Your task to perform on an android device: Open Maps and search for coffee Image 0: 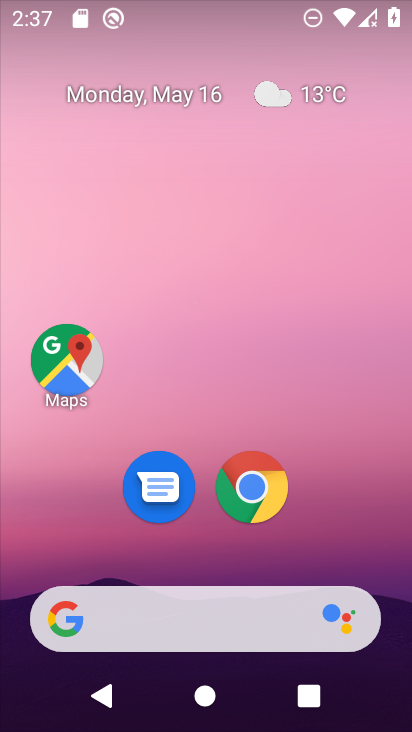
Step 0: click (77, 356)
Your task to perform on an android device: Open Maps and search for coffee Image 1: 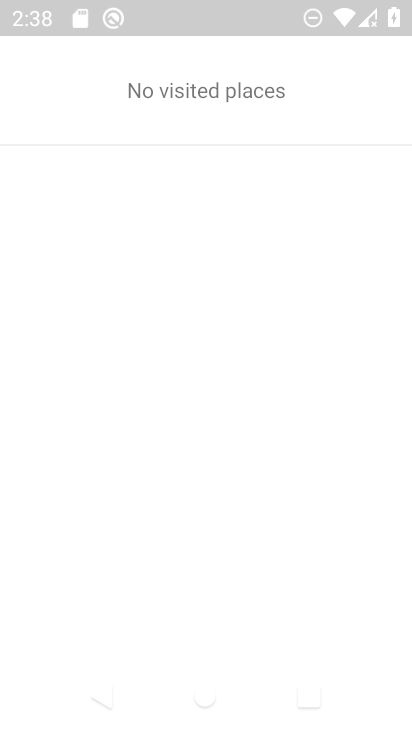
Step 1: press home button
Your task to perform on an android device: Open Maps and search for coffee Image 2: 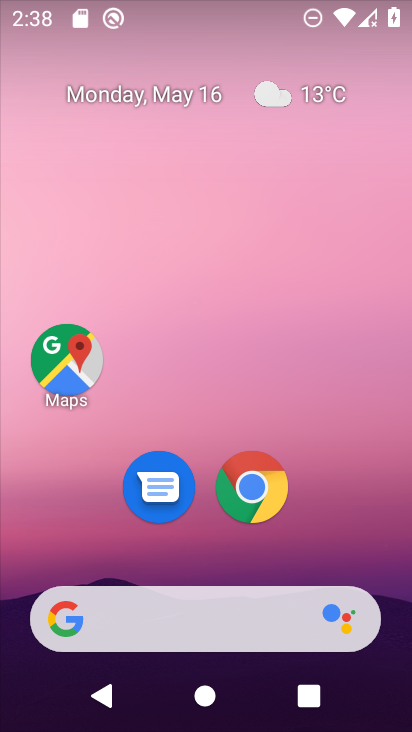
Step 2: click (52, 356)
Your task to perform on an android device: Open Maps and search for coffee Image 3: 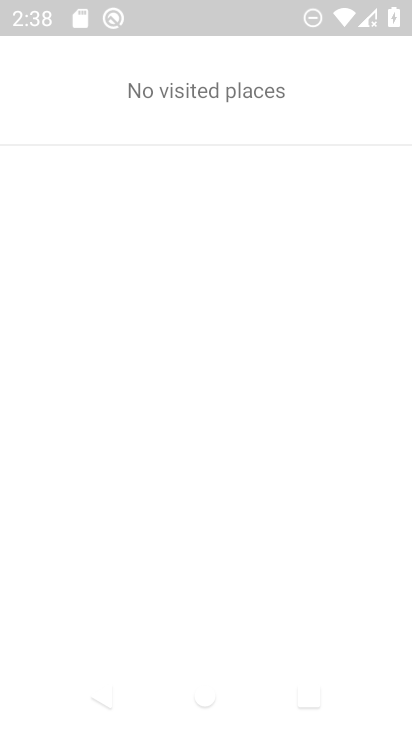
Step 3: task complete